Your task to perform on an android device: Open the map Image 0: 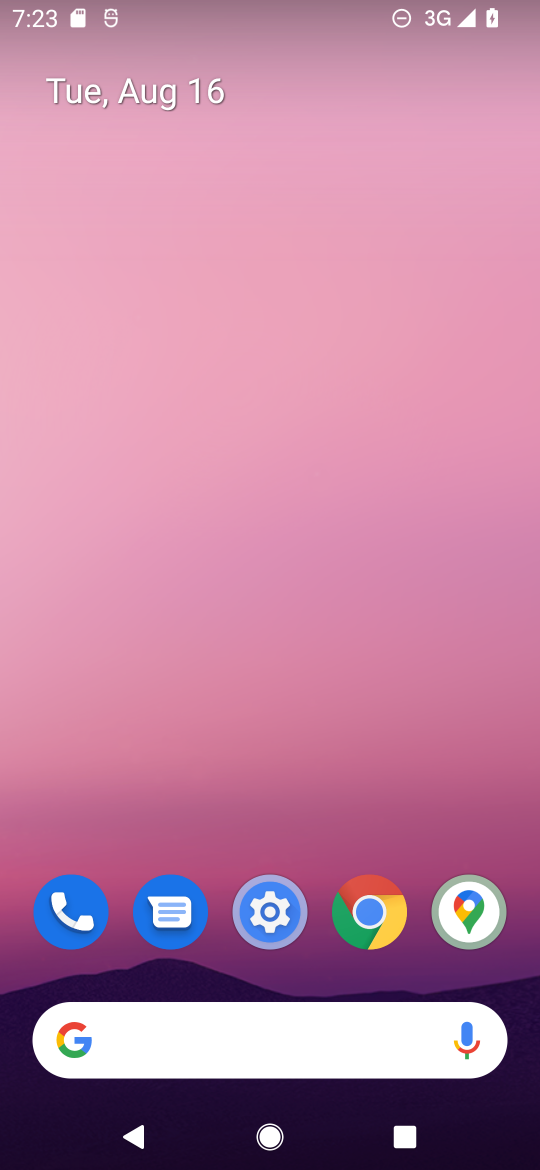
Step 0: click (473, 912)
Your task to perform on an android device: Open the map Image 1: 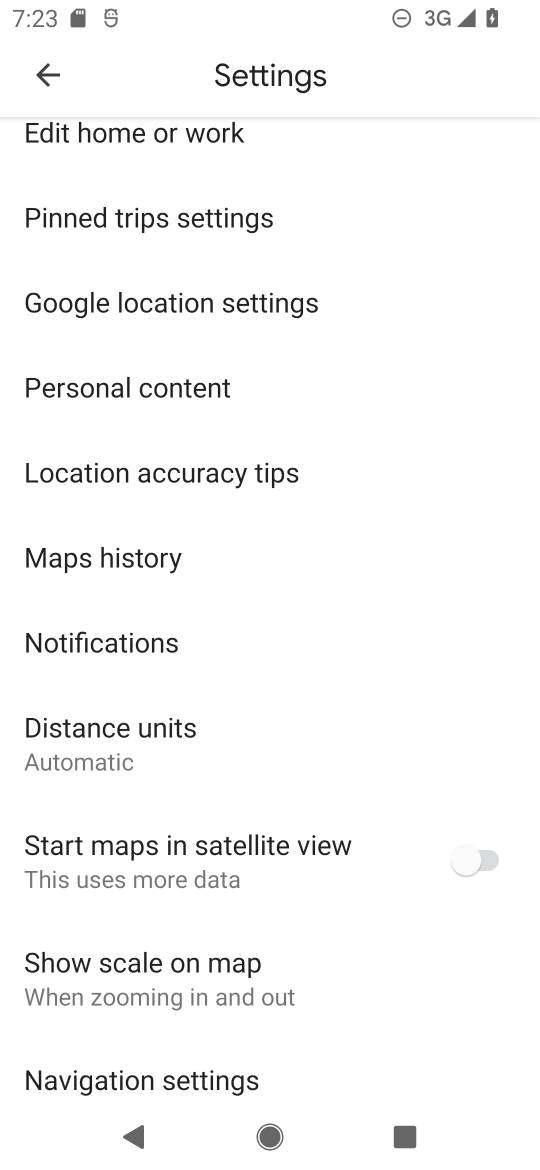
Step 1: task complete